Your task to perform on an android device: Open settings on Google Maps Image 0: 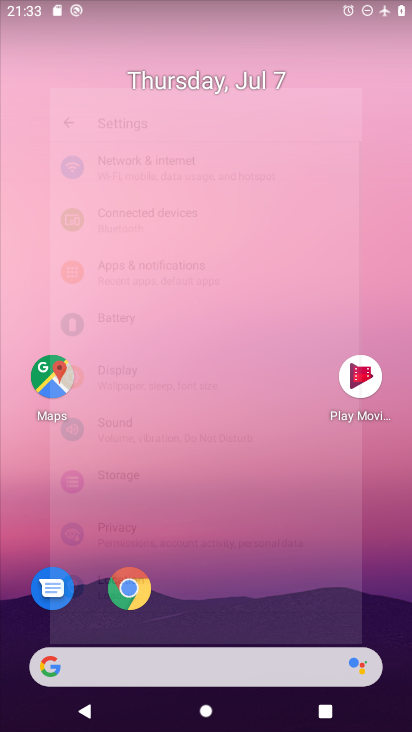
Step 0: drag from (236, 614) to (278, 242)
Your task to perform on an android device: Open settings on Google Maps Image 1: 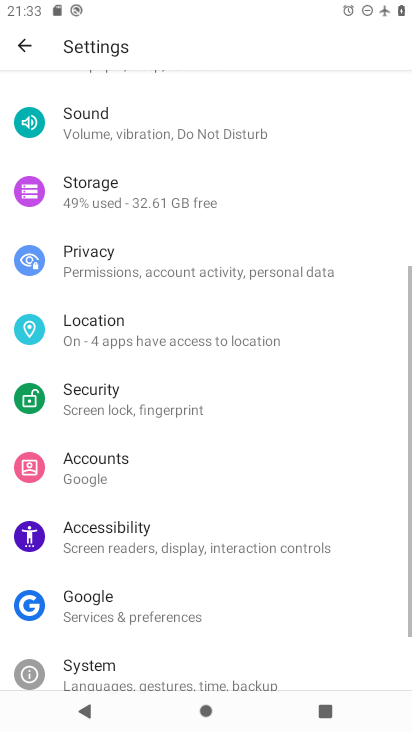
Step 1: press home button
Your task to perform on an android device: Open settings on Google Maps Image 2: 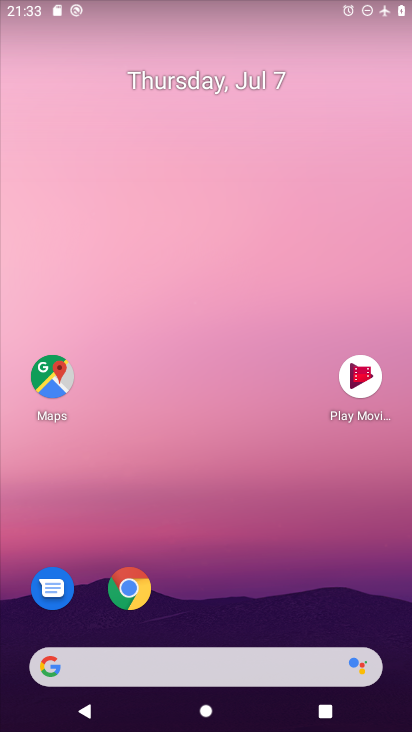
Step 2: drag from (227, 621) to (346, 156)
Your task to perform on an android device: Open settings on Google Maps Image 3: 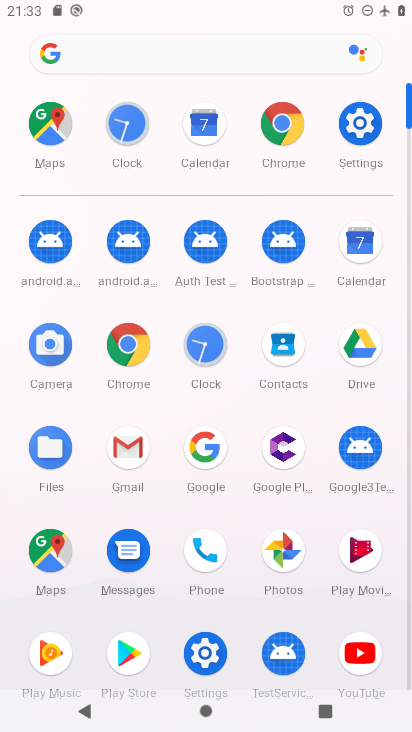
Step 3: click (55, 539)
Your task to perform on an android device: Open settings on Google Maps Image 4: 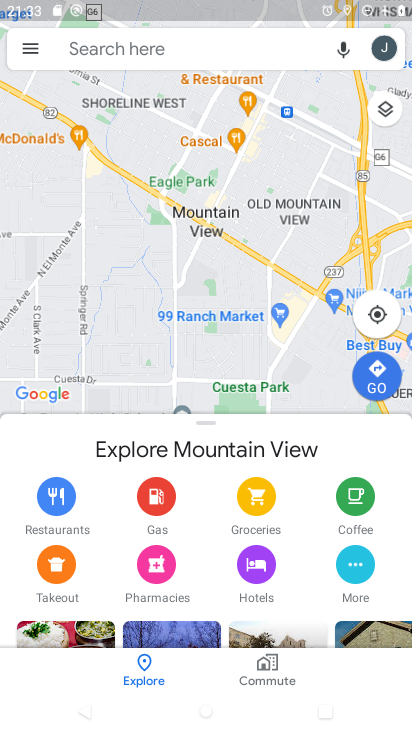
Step 4: click (26, 36)
Your task to perform on an android device: Open settings on Google Maps Image 5: 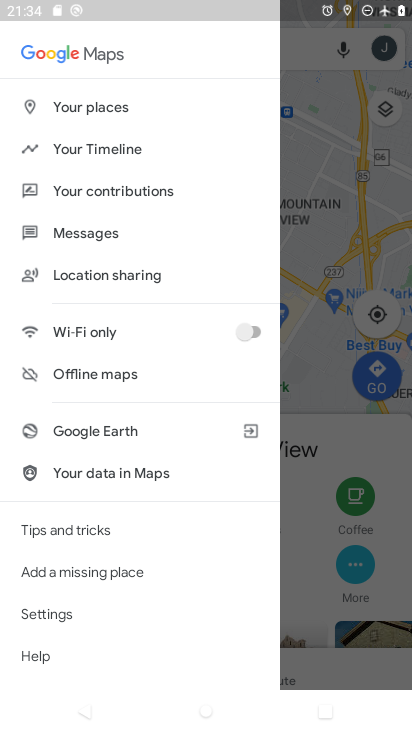
Step 5: click (76, 623)
Your task to perform on an android device: Open settings on Google Maps Image 6: 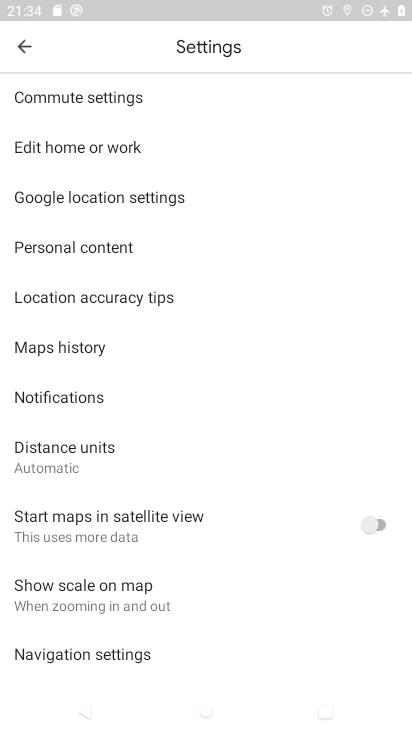
Step 6: task complete